Your task to perform on an android device: check android version Image 0: 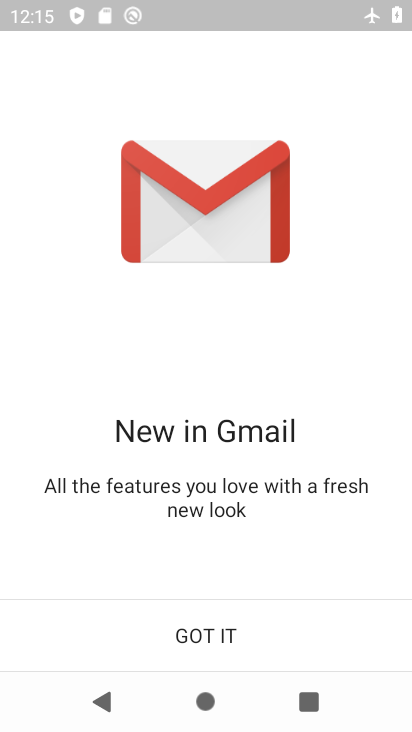
Step 0: press home button
Your task to perform on an android device: check android version Image 1: 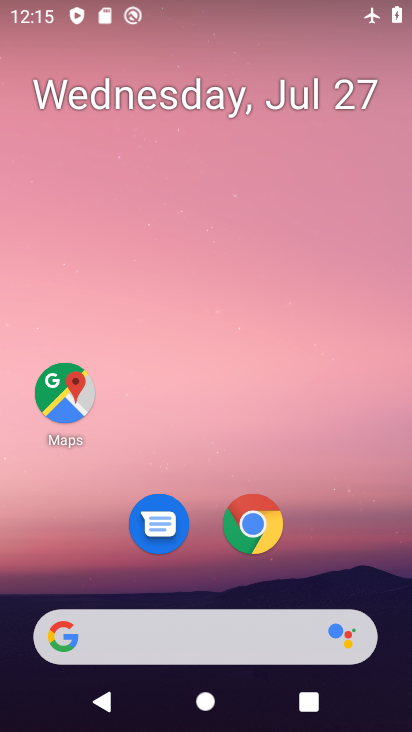
Step 1: drag from (321, 551) to (324, 111)
Your task to perform on an android device: check android version Image 2: 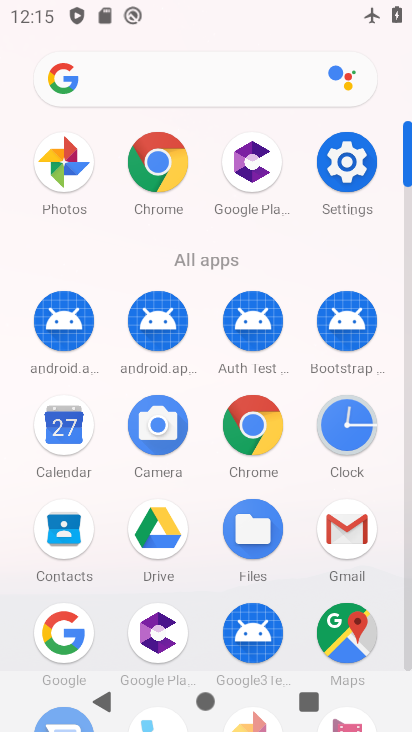
Step 2: click (346, 168)
Your task to perform on an android device: check android version Image 3: 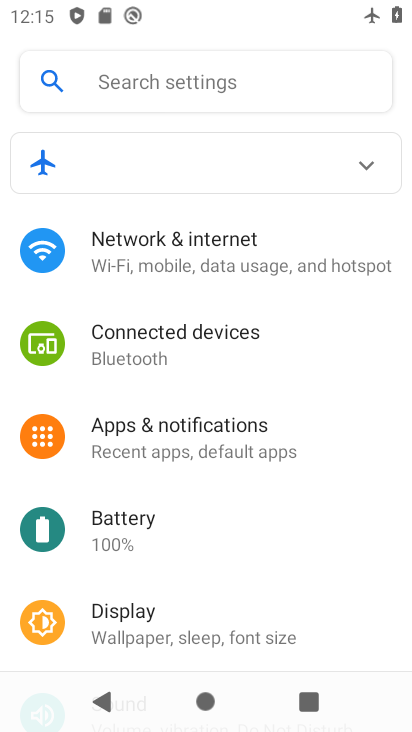
Step 3: drag from (219, 587) to (326, 63)
Your task to perform on an android device: check android version Image 4: 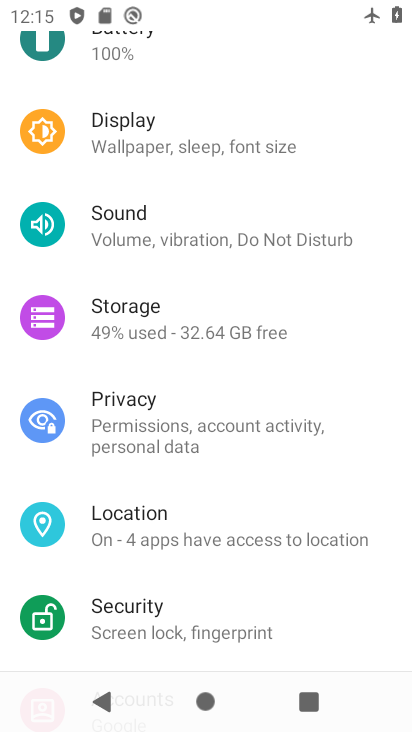
Step 4: drag from (219, 578) to (317, 22)
Your task to perform on an android device: check android version Image 5: 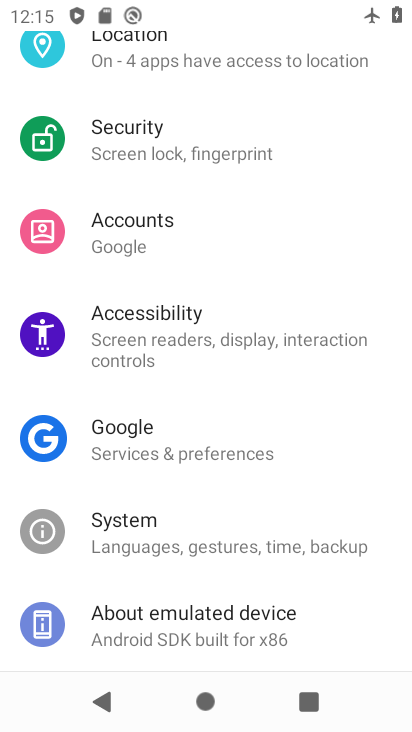
Step 5: click (215, 624)
Your task to perform on an android device: check android version Image 6: 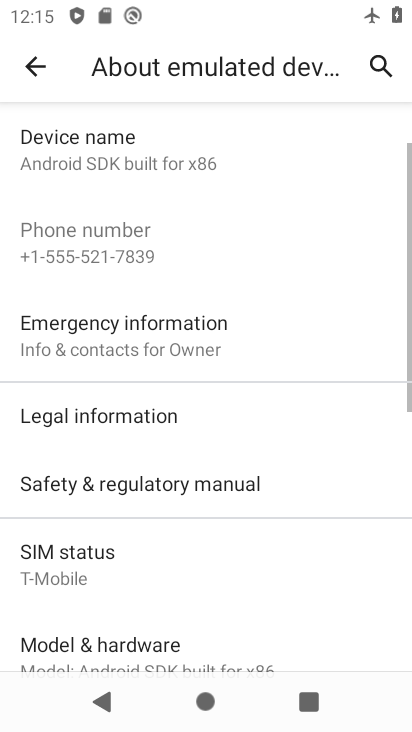
Step 6: drag from (235, 572) to (297, 173)
Your task to perform on an android device: check android version Image 7: 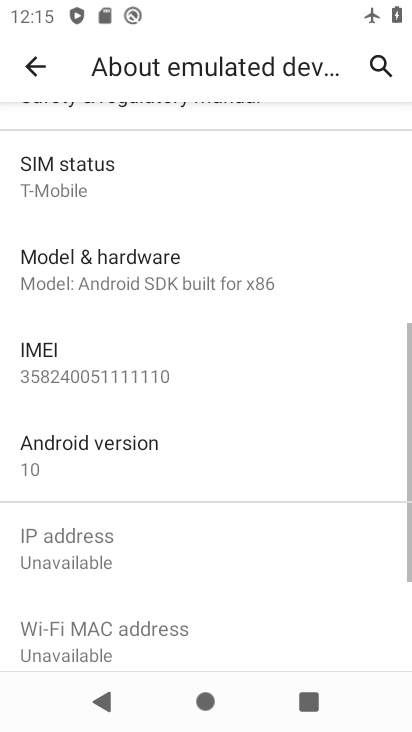
Step 7: click (88, 458)
Your task to perform on an android device: check android version Image 8: 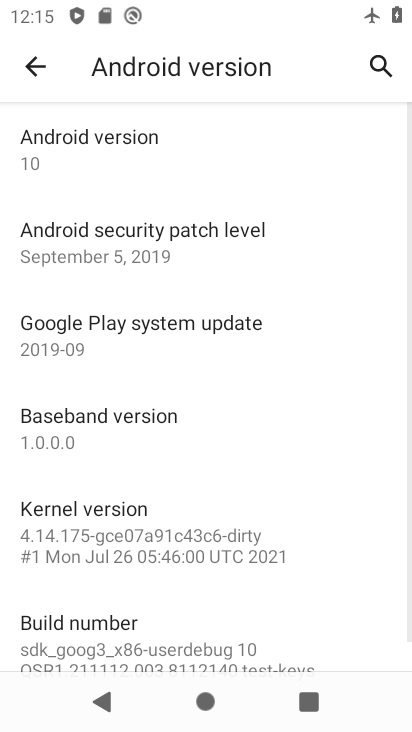
Step 8: task complete